Your task to perform on an android device: When is my next meeting? Image 0: 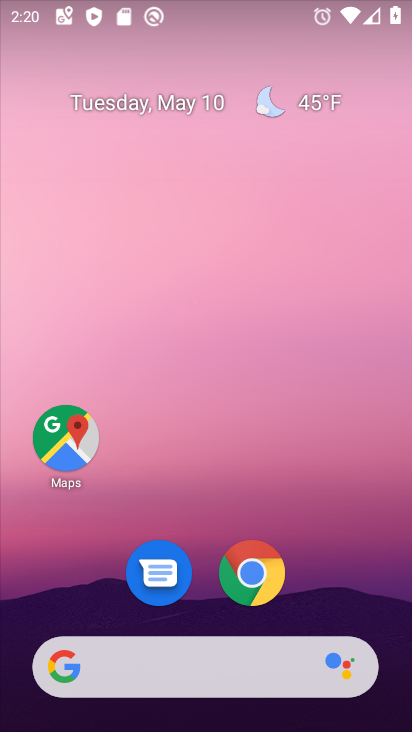
Step 0: drag from (233, 719) to (296, 101)
Your task to perform on an android device: When is my next meeting? Image 1: 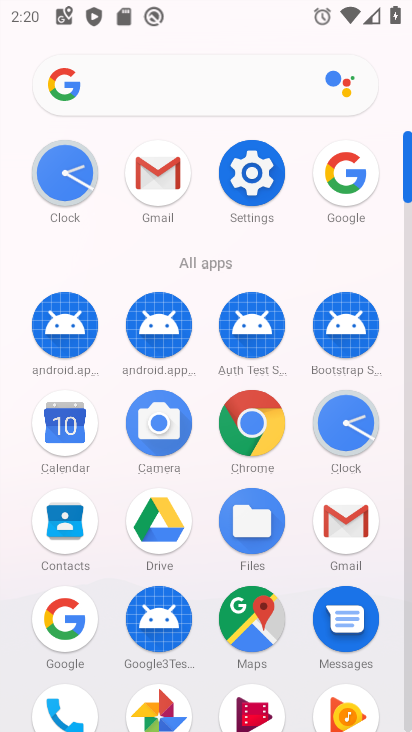
Step 1: click (81, 428)
Your task to perform on an android device: When is my next meeting? Image 2: 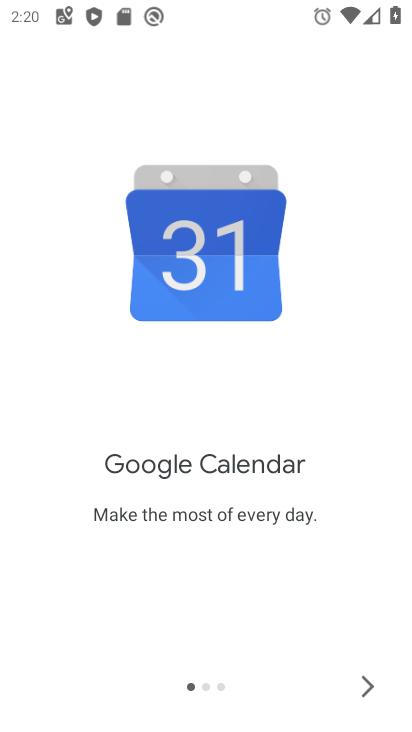
Step 2: click (369, 683)
Your task to perform on an android device: When is my next meeting? Image 3: 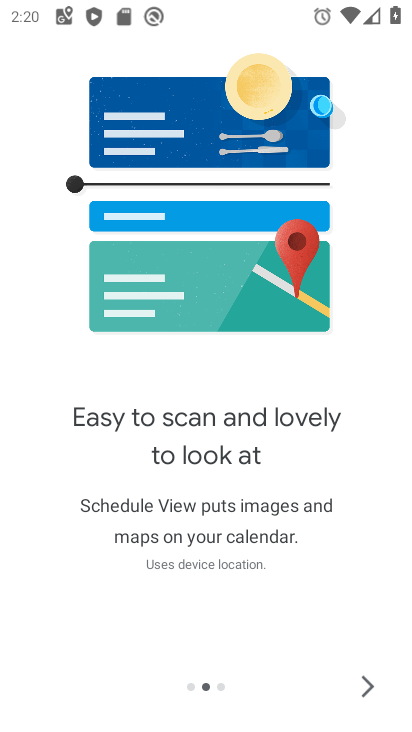
Step 3: click (370, 683)
Your task to perform on an android device: When is my next meeting? Image 4: 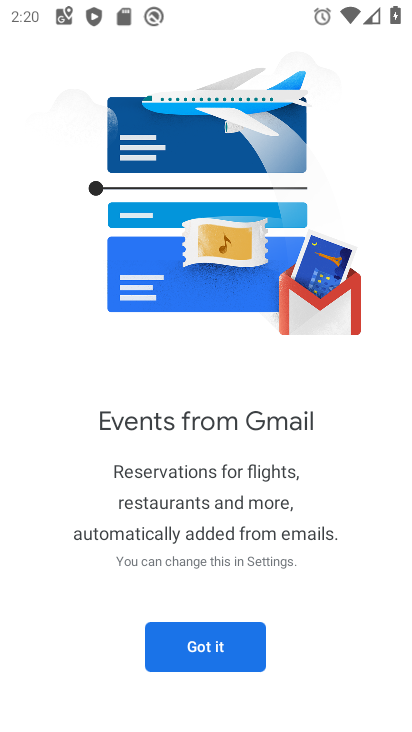
Step 4: click (221, 652)
Your task to perform on an android device: When is my next meeting? Image 5: 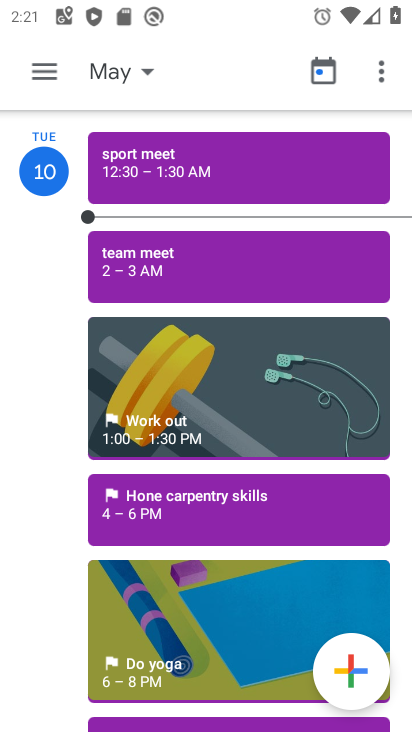
Step 5: task complete